Your task to perform on an android device: toggle location history Image 0: 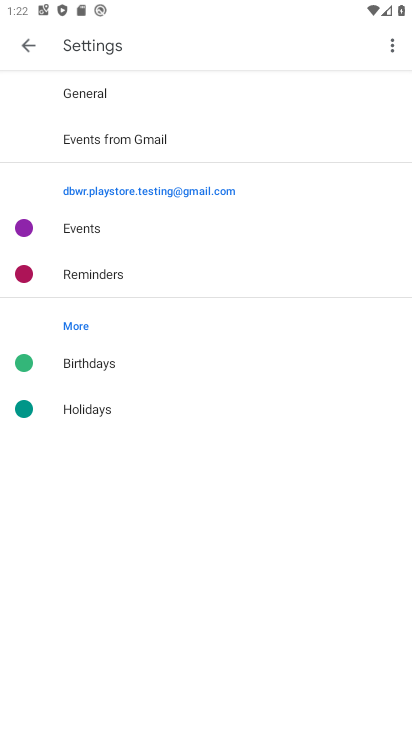
Step 0: press home button
Your task to perform on an android device: toggle location history Image 1: 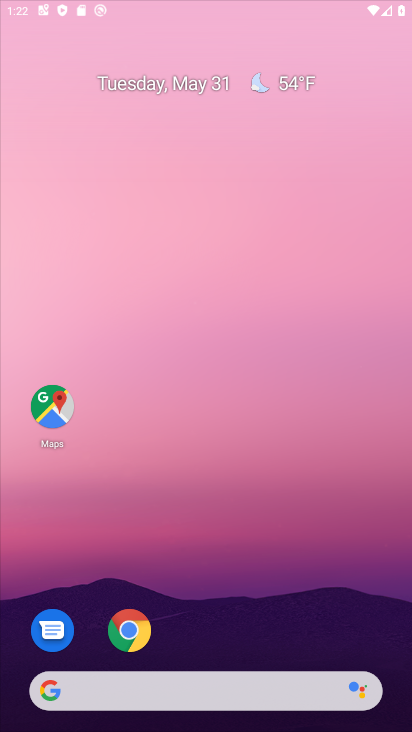
Step 1: drag from (218, 632) to (281, 62)
Your task to perform on an android device: toggle location history Image 2: 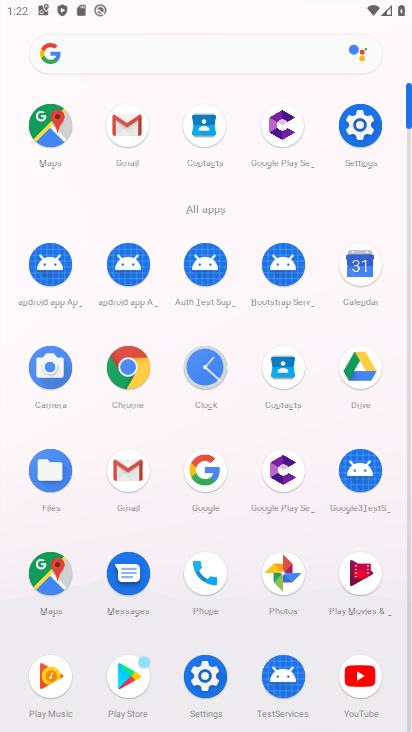
Step 2: click (366, 133)
Your task to perform on an android device: toggle location history Image 3: 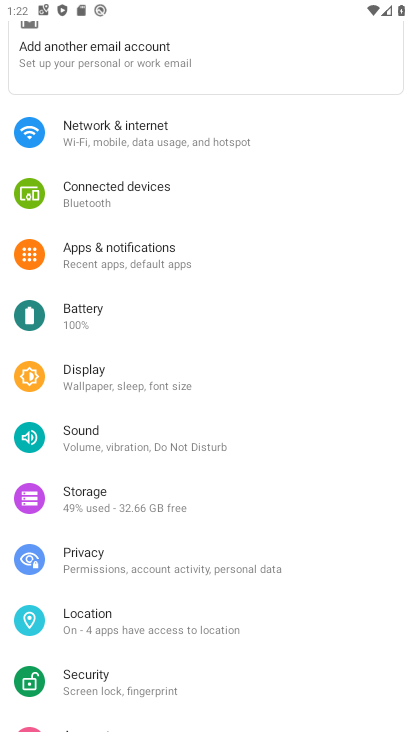
Step 3: click (101, 617)
Your task to perform on an android device: toggle location history Image 4: 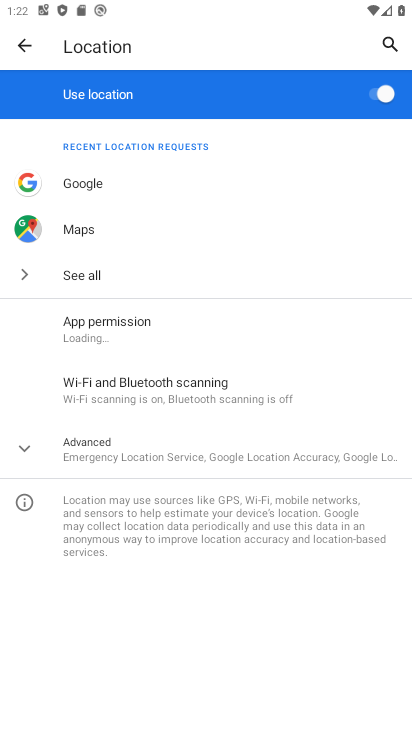
Step 4: click (108, 461)
Your task to perform on an android device: toggle location history Image 5: 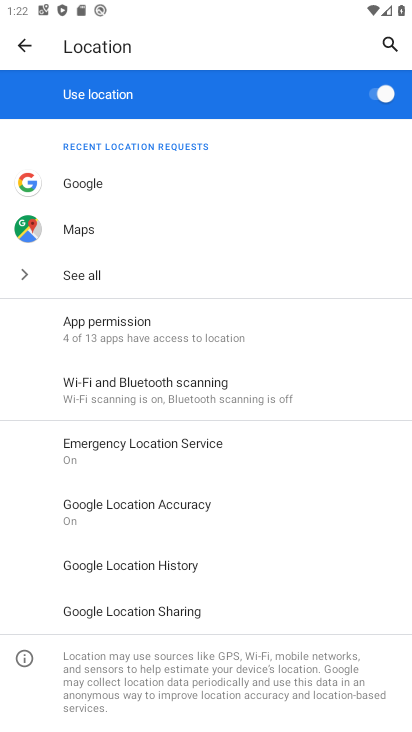
Step 5: click (150, 560)
Your task to perform on an android device: toggle location history Image 6: 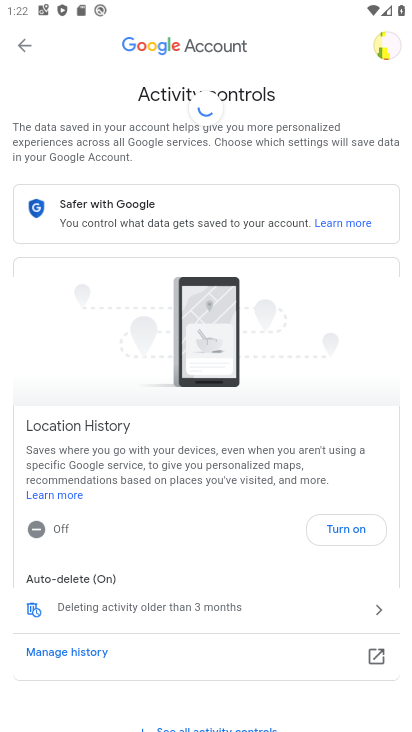
Step 6: drag from (216, 538) to (204, 295)
Your task to perform on an android device: toggle location history Image 7: 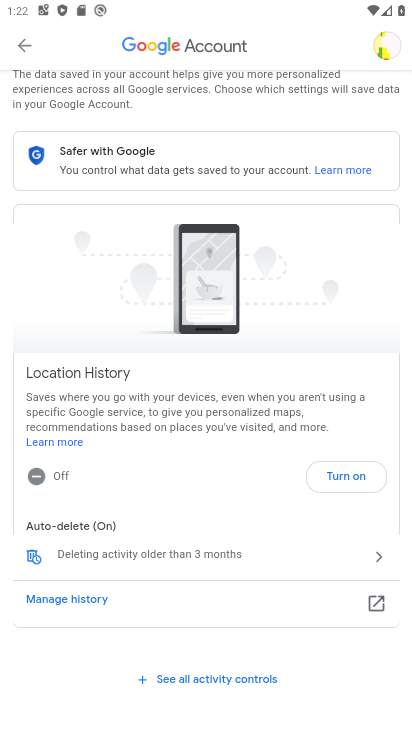
Step 7: click (348, 480)
Your task to perform on an android device: toggle location history Image 8: 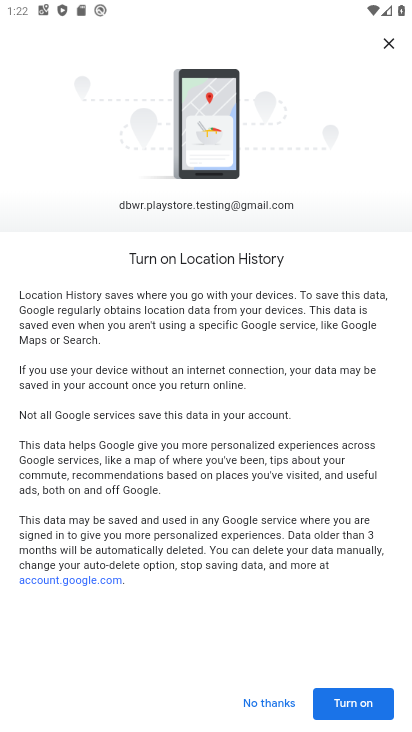
Step 8: click (369, 698)
Your task to perform on an android device: toggle location history Image 9: 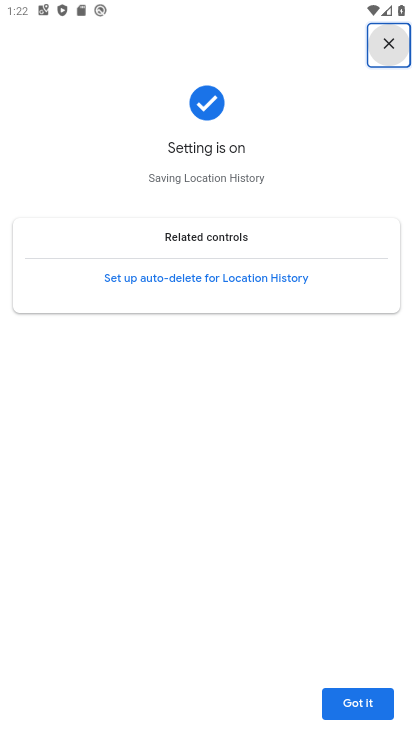
Step 9: click (349, 694)
Your task to perform on an android device: toggle location history Image 10: 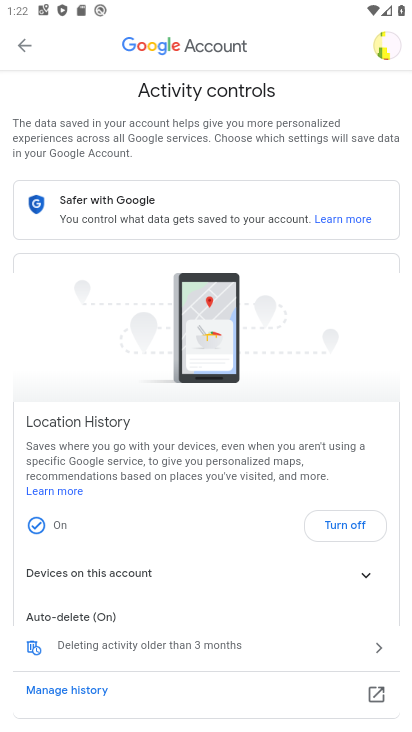
Step 10: task complete